Your task to perform on an android device: Open network settings Image 0: 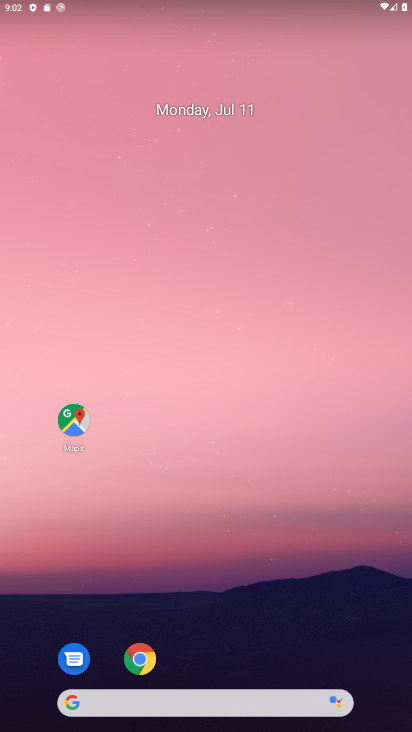
Step 0: drag from (310, 641) to (347, 99)
Your task to perform on an android device: Open network settings Image 1: 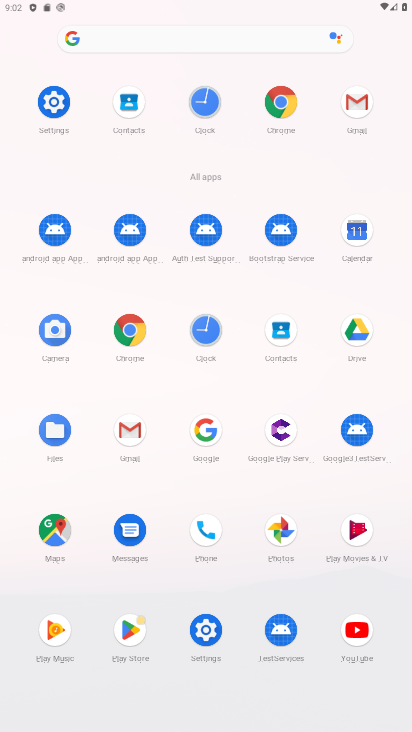
Step 1: click (206, 631)
Your task to perform on an android device: Open network settings Image 2: 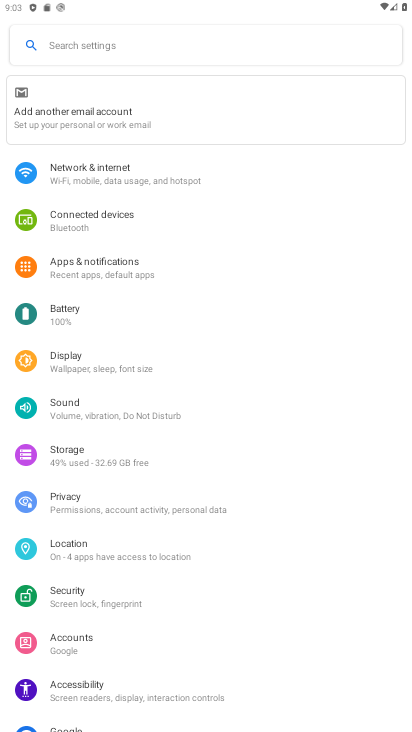
Step 2: drag from (316, 599) to (330, 385)
Your task to perform on an android device: Open network settings Image 3: 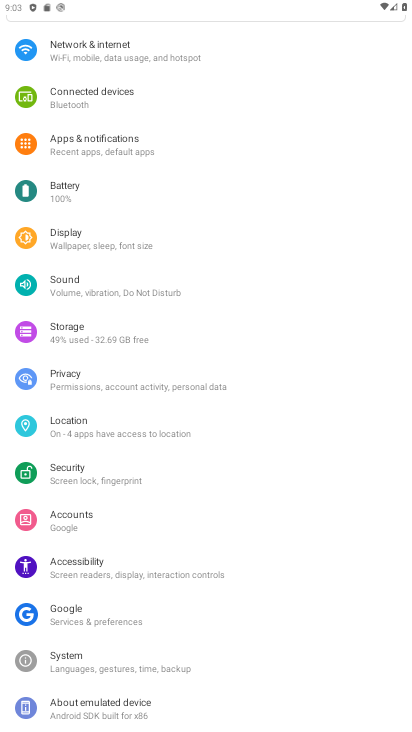
Step 3: drag from (318, 596) to (325, 380)
Your task to perform on an android device: Open network settings Image 4: 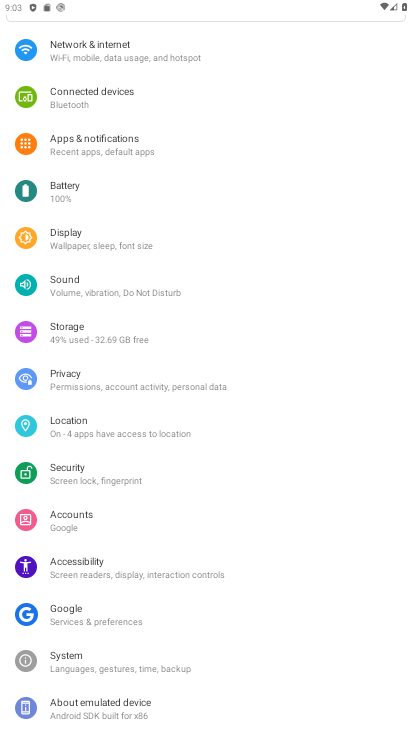
Step 4: drag from (266, 262) to (290, 439)
Your task to perform on an android device: Open network settings Image 5: 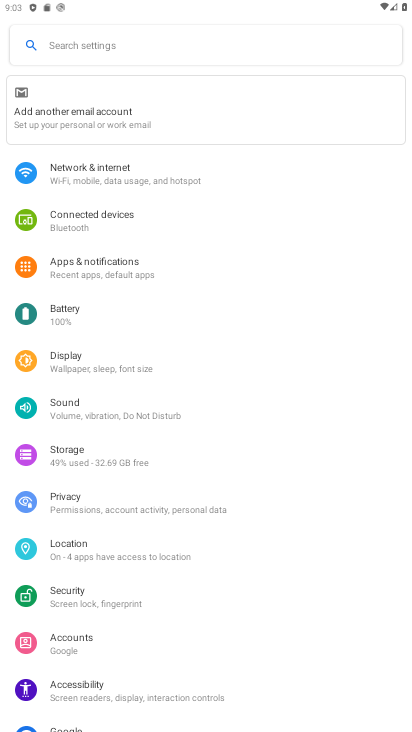
Step 5: drag from (291, 197) to (288, 356)
Your task to perform on an android device: Open network settings Image 6: 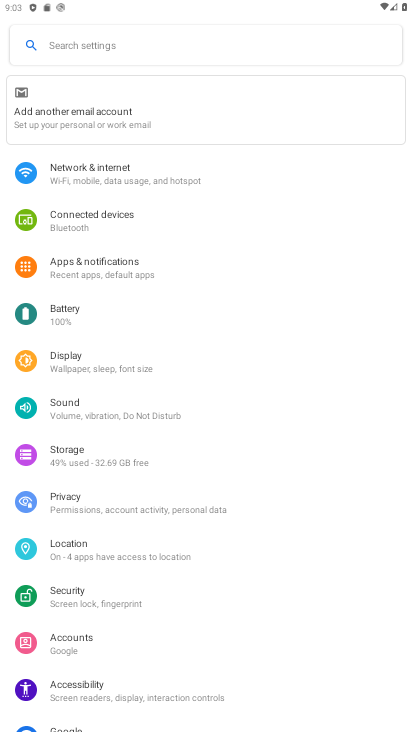
Step 6: click (210, 177)
Your task to perform on an android device: Open network settings Image 7: 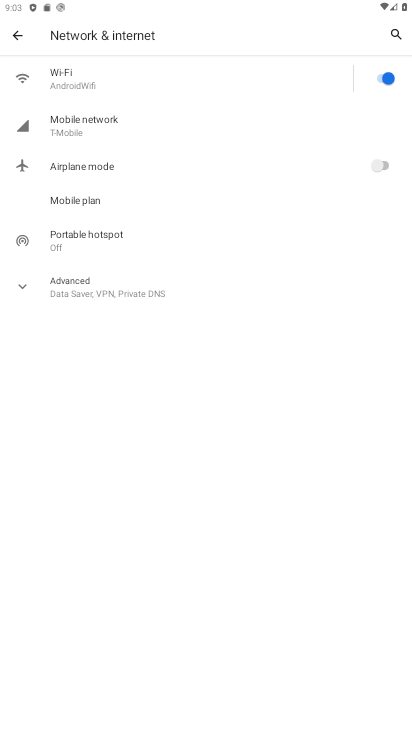
Step 7: task complete